Your task to perform on an android device: stop showing notifications on the lock screen Image 0: 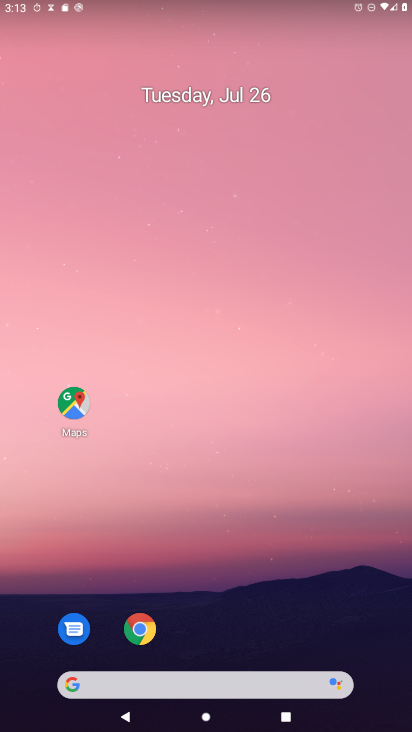
Step 0: drag from (211, 682) to (258, 64)
Your task to perform on an android device: stop showing notifications on the lock screen Image 1: 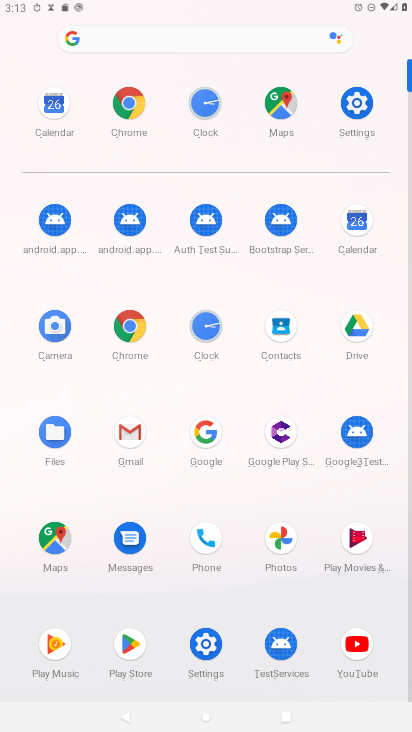
Step 1: click (361, 89)
Your task to perform on an android device: stop showing notifications on the lock screen Image 2: 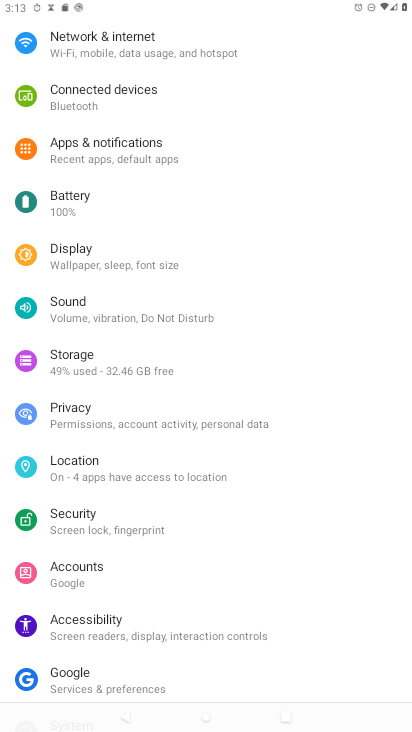
Step 2: click (157, 164)
Your task to perform on an android device: stop showing notifications on the lock screen Image 3: 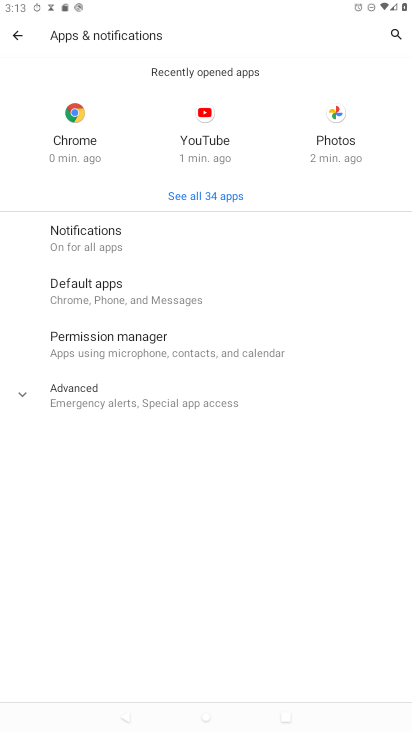
Step 3: click (92, 244)
Your task to perform on an android device: stop showing notifications on the lock screen Image 4: 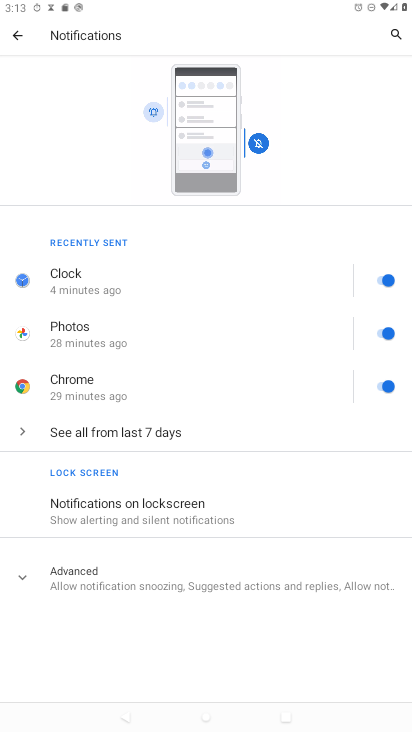
Step 4: click (103, 517)
Your task to perform on an android device: stop showing notifications on the lock screen Image 5: 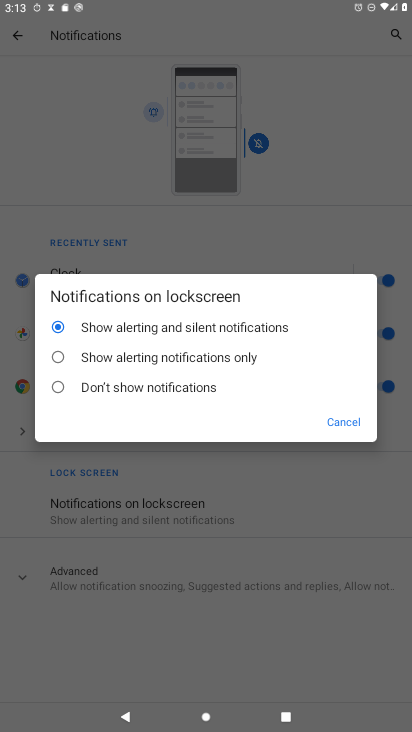
Step 5: click (53, 382)
Your task to perform on an android device: stop showing notifications on the lock screen Image 6: 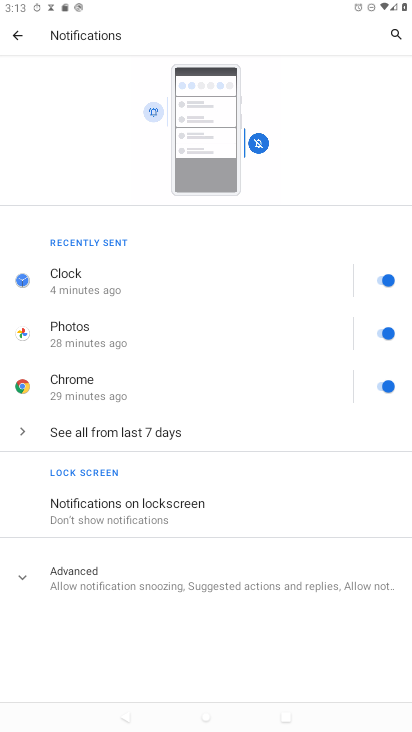
Step 6: task complete